Your task to perform on an android device: Turn off the flashlight Image 0: 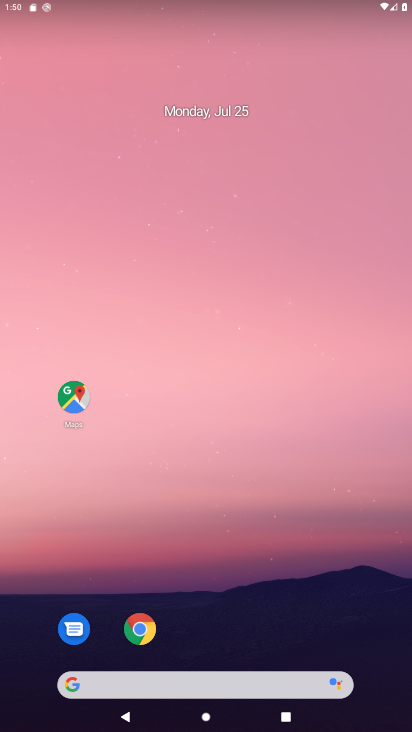
Step 0: drag from (322, 558) to (292, 33)
Your task to perform on an android device: Turn off the flashlight Image 1: 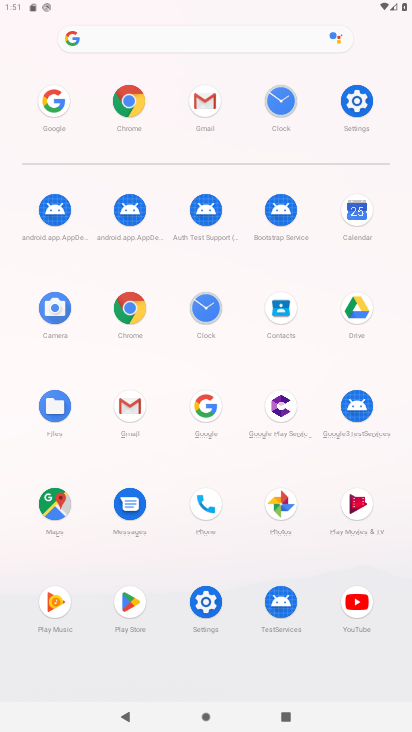
Step 1: click (363, 98)
Your task to perform on an android device: Turn off the flashlight Image 2: 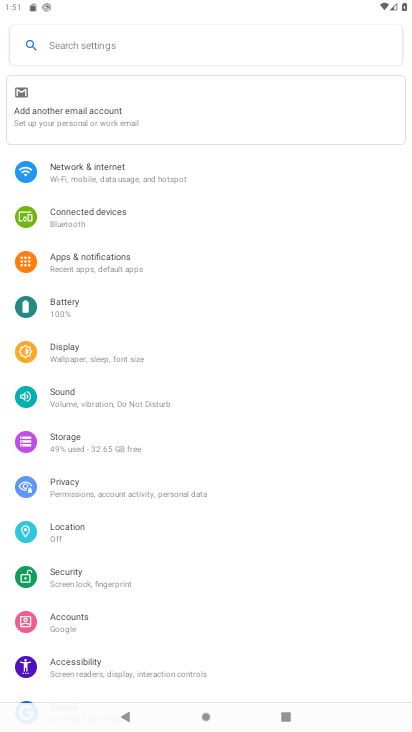
Step 2: task complete